Your task to perform on an android device: set default search engine in the chrome app Image 0: 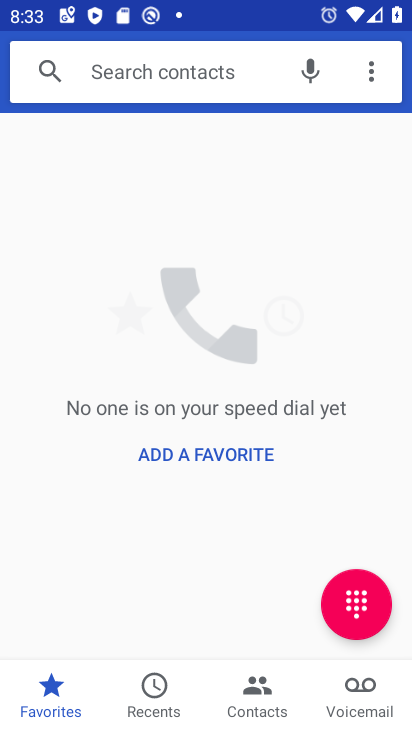
Step 0: press home button
Your task to perform on an android device: set default search engine in the chrome app Image 1: 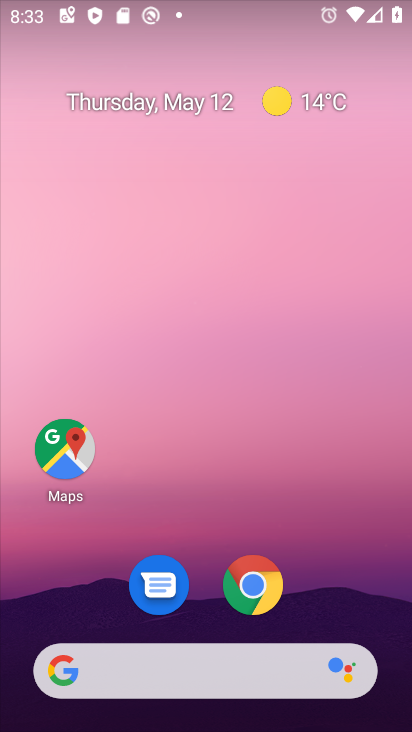
Step 1: click (267, 581)
Your task to perform on an android device: set default search engine in the chrome app Image 2: 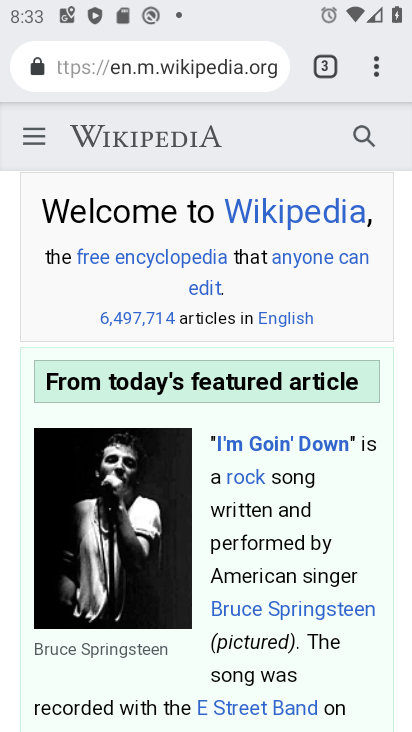
Step 2: click (372, 64)
Your task to perform on an android device: set default search engine in the chrome app Image 3: 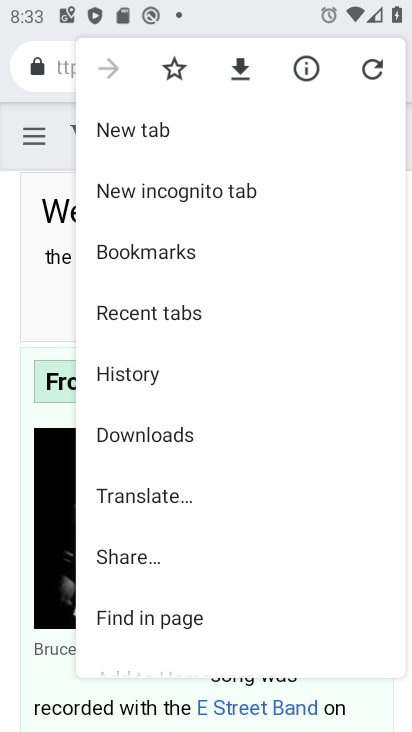
Step 3: drag from (225, 572) to (220, 277)
Your task to perform on an android device: set default search engine in the chrome app Image 4: 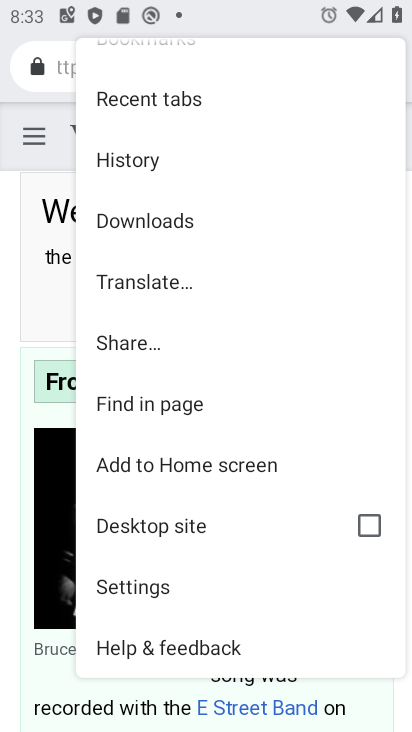
Step 4: click (153, 586)
Your task to perform on an android device: set default search engine in the chrome app Image 5: 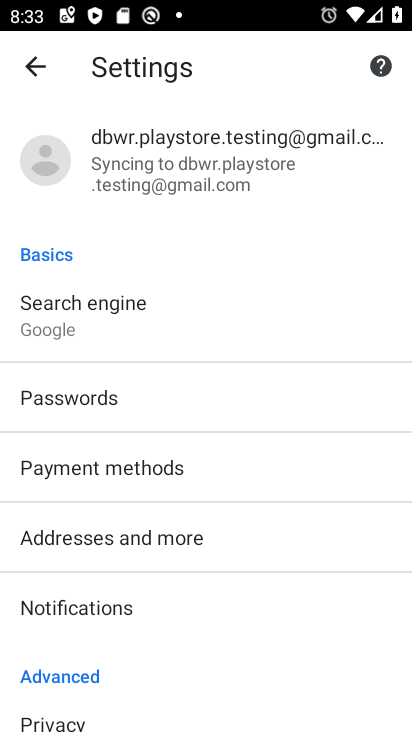
Step 5: click (150, 333)
Your task to perform on an android device: set default search engine in the chrome app Image 6: 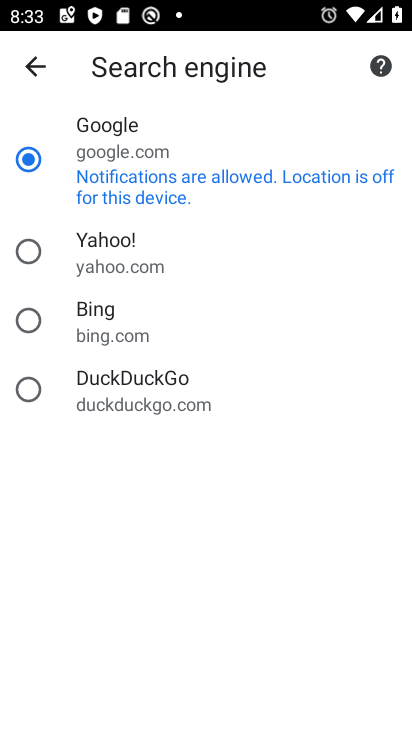
Step 6: task complete